Your task to perform on an android device: toggle improve location accuracy Image 0: 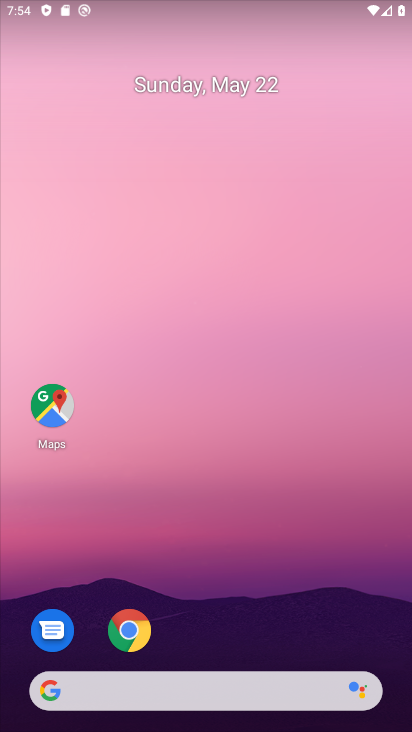
Step 0: drag from (308, 637) to (363, 253)
Your task to perform on an android device: toggle improve location accuracy Image 1: 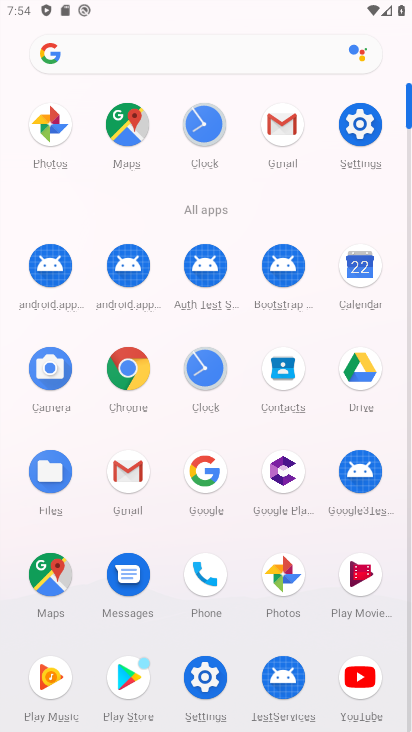
Step 1: click (359, 142)
Your task to perform on an android device: toggle improve location accuracy Image 2: 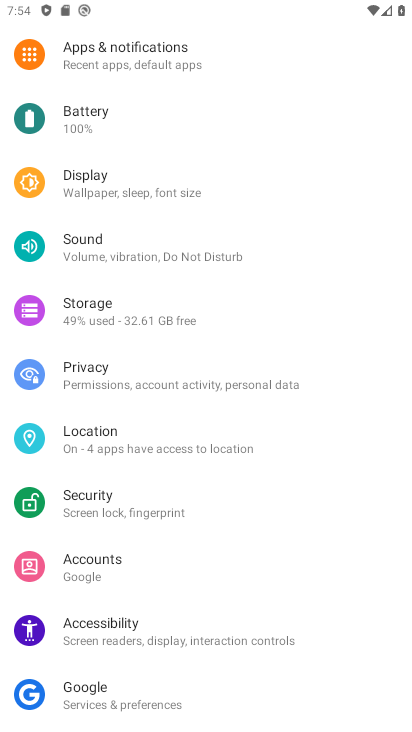
Step 2: click (173, 450)
Your task to perform on an android device: toggle improve location accuracy Image 3: 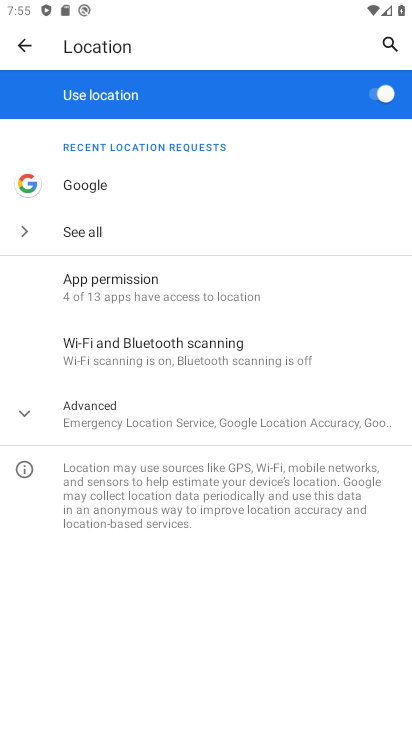
Step 3: click (189, 430)
Your task to perform on an android device: toggle improve location accuracy Image 4: 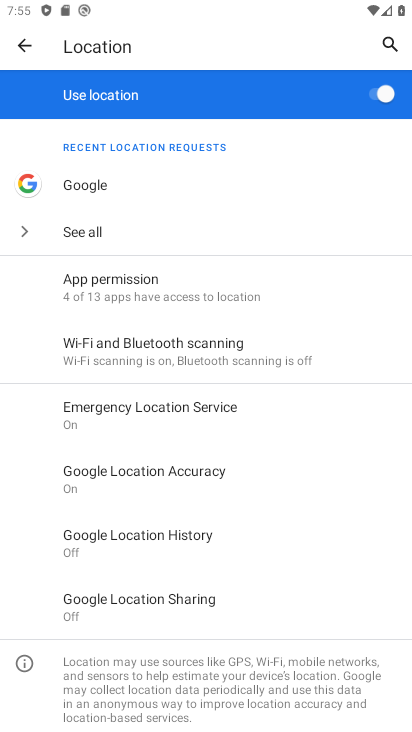
Step 4: click (260, 482)
Your task to perform on an android device: toggle improve location accuracy Image 5: 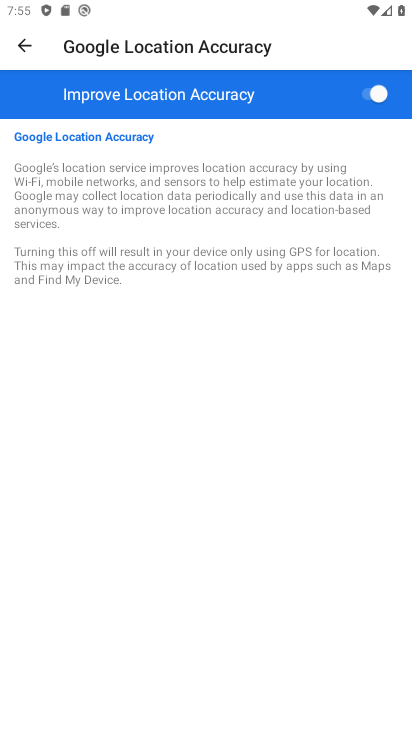
Step 5: task complete